Your task to perform on an android device: turn off priority inbox in the gmail app Image 0: 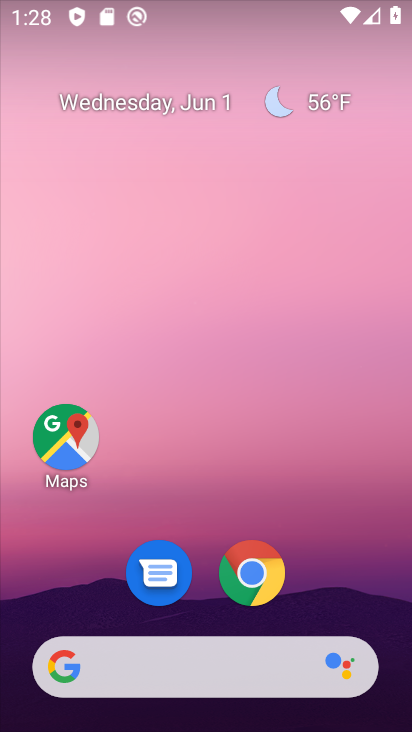
Step 0: click (254, 143)
Your task to perform on an android device: turn off priority inbox in the gmail app Image 1: 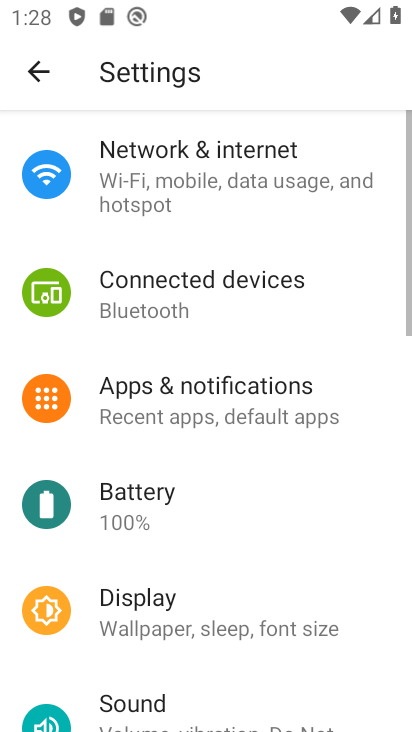
Step 1: drag from (206, 598) to (247, 163)
Your task to perform on an android device: turn off priority inbox in the gmail app Image 2: 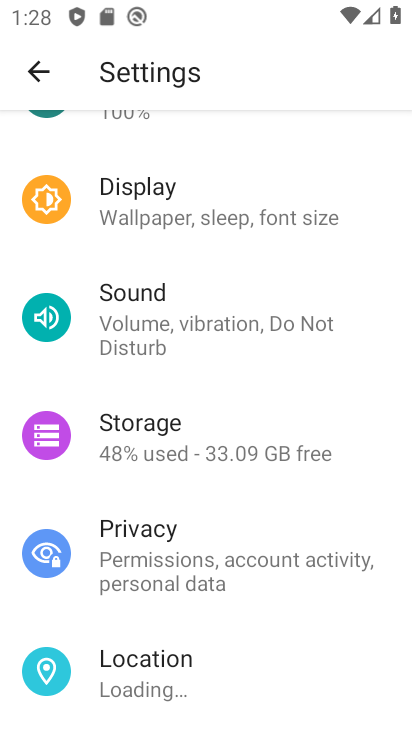
Step 2: press home button
Your task to perform on an android device: turn off priority inbox in the gmail app Image 3: 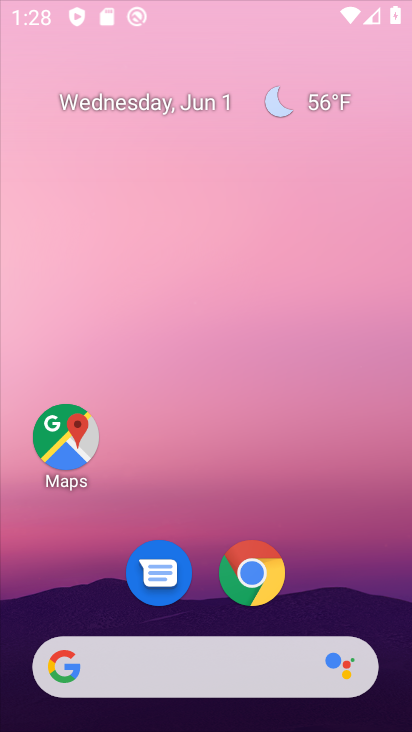
Step 3: drag from (164, 607) to (248, 208)
Your task to perform on an android device: turn off priority inbox in the gmail app Image 4: 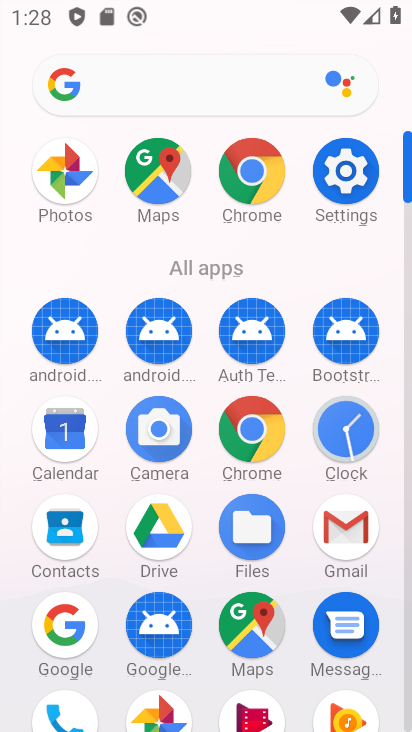
Step 4: click (345, 530)
Your task to perform on an android device: turn off priority inbox in the gmail app Image 5: 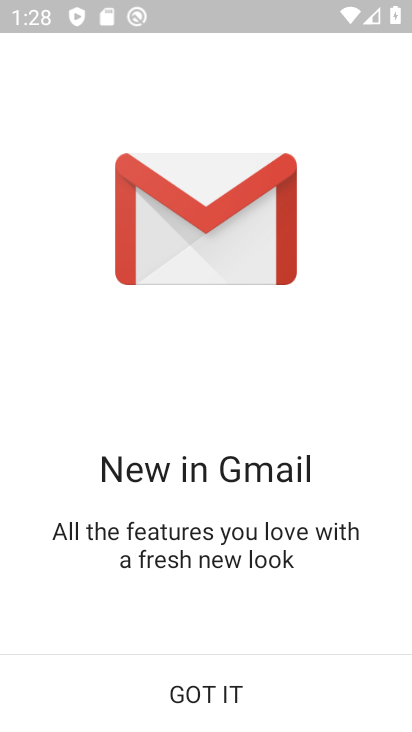
Step 5: click (229, 674)
Your task to perform on an android device: turn off priority inbox in the gmail app Image 6: 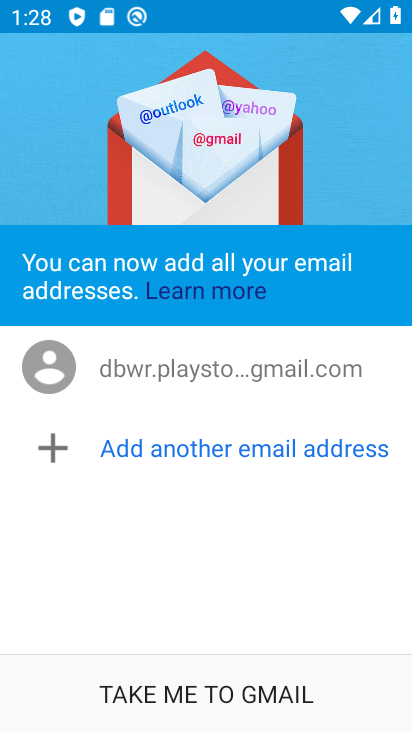
Step 6: click (198, 686)
Your task to perform on an android device: turn off priority inbox in the gmail app Image 7: 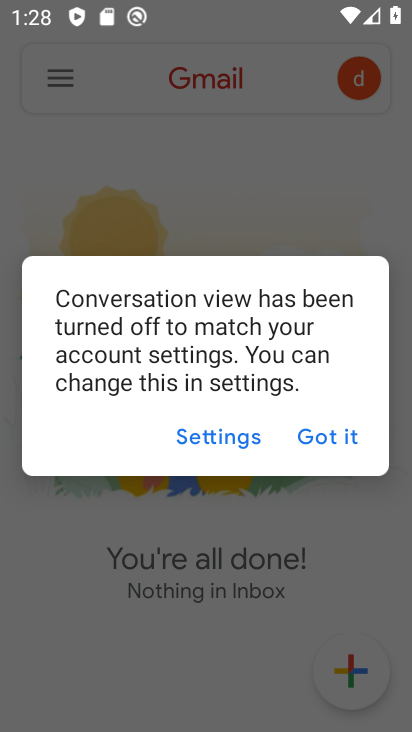
Step 7: click (311, 427)
Your task to perform on an android device: turn off priority inbox in the gmail app Image 8: 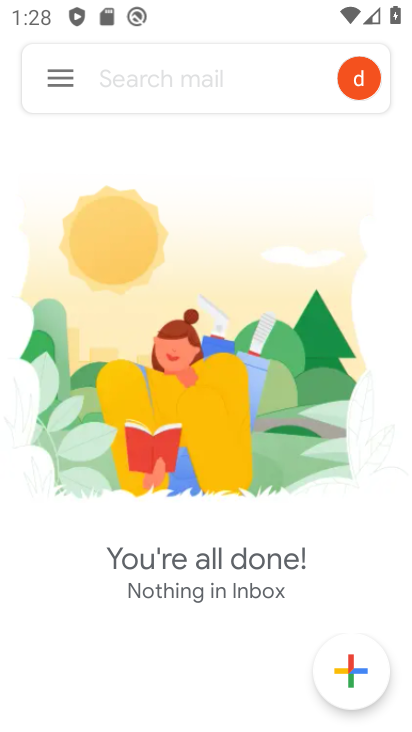
Step 8: click (56, 78)
Your task to perform on an android device: turn off priority inbox in the gmail app Image 9: 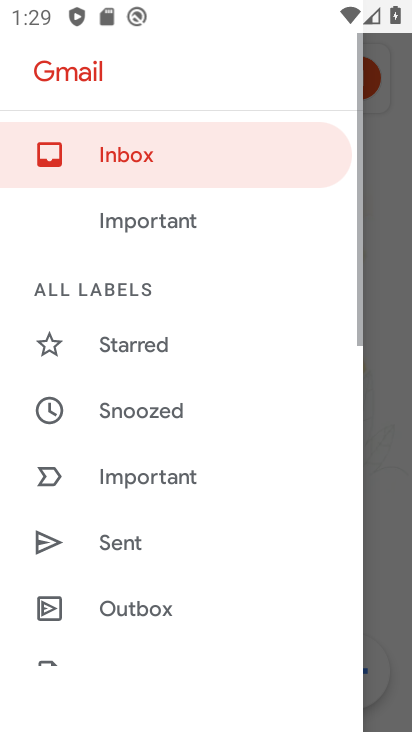
Step 9: drag from (117, 591) to (169, 6)
Your task to perform on an android device: turn off priority inbox in the gmail app Image 10: 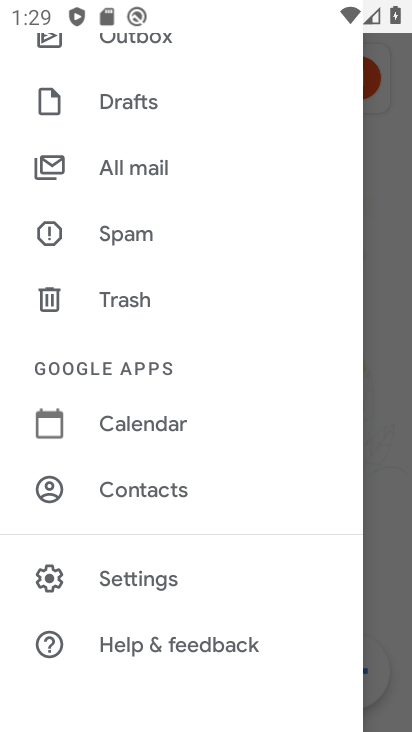
Step 10: click (129, 590)
Your task to perform on an android device: turn off priority inbox in the gmail app Image 11: 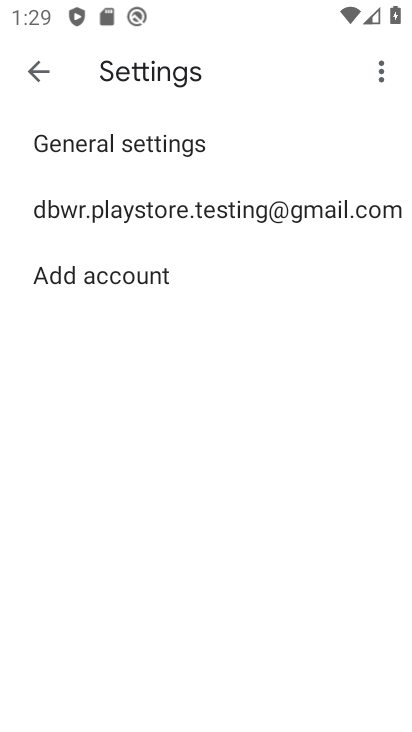
Step 11: click (120, 212)
Your task to perform on an android device: turn off priority inbox in the gmail app Image 12: 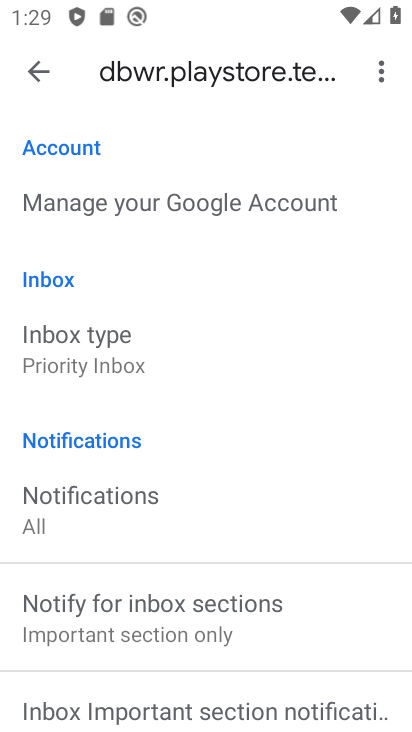
Step 12: click (140, 348)
Your task to perform on an android device: turn off priority inbox in the gmail app Image 13: 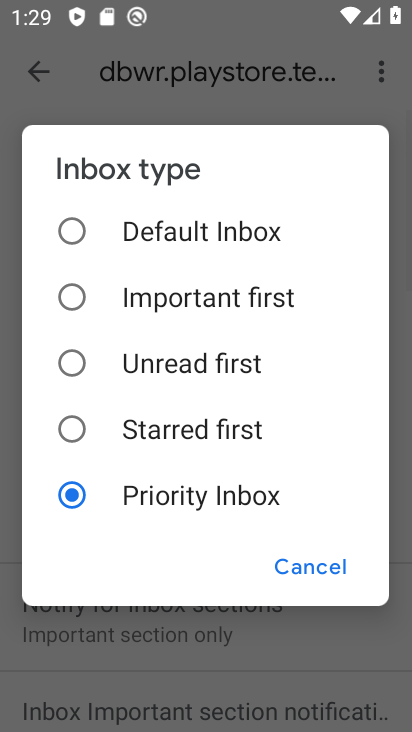
Step 13: click (126, 230)
Your task to perform on an android device: turn off priority inbox in the gmail app Image 14: 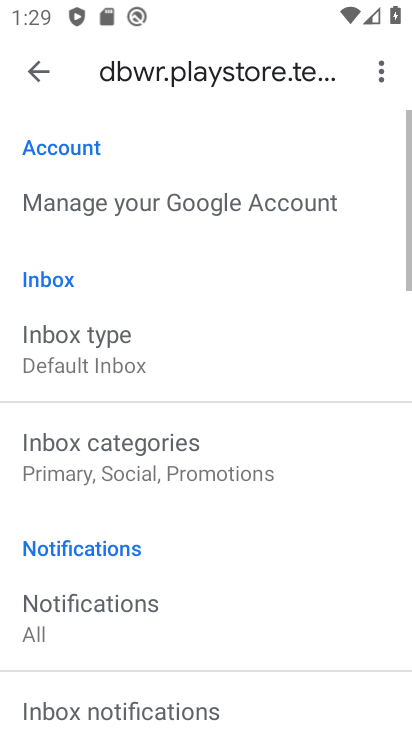
Step 14: task complete